Your task to perform on an android device: choose inbox layout in the gmail app Image 0: 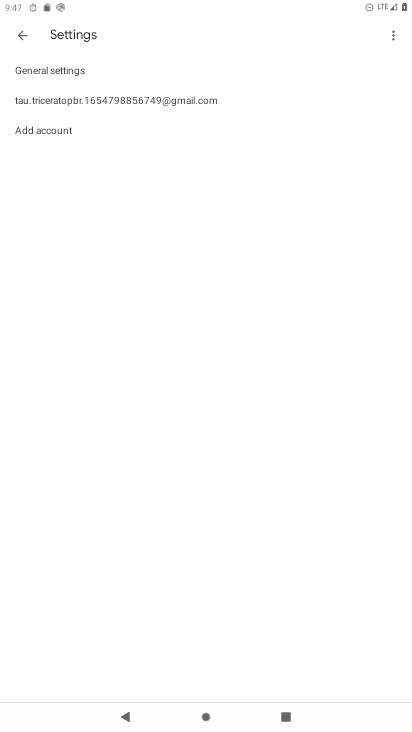
Step 0: press home button
Your task to perform on an android device: choose inbox layout in the gmail app Image 1: 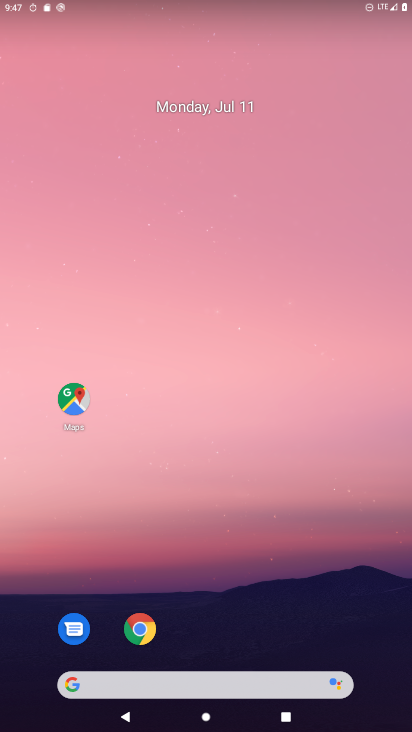
Step 1: drag from (206, 626) to (206, 83)
Your task to perform on an android device: choose inbox layout in the gmail app Image 2: 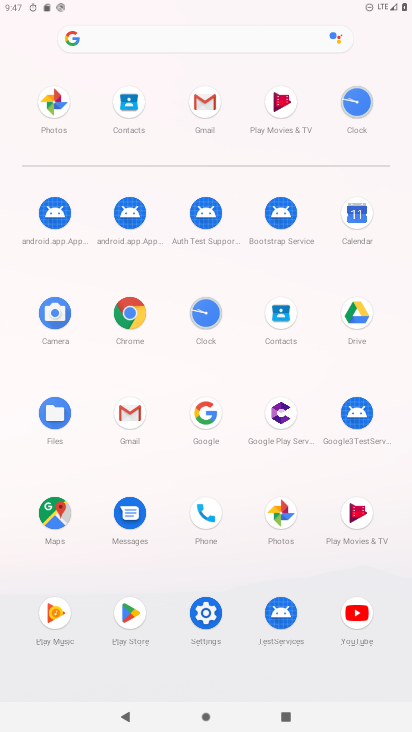
Step 2: click (205, 101)
Your task to perform on an android device: choose inbox layout in the gmail app Image 3: 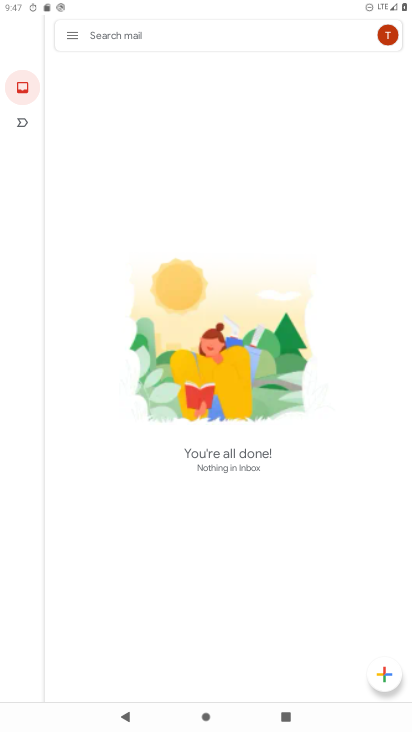
Step 3: click (80, 35)
Your task to perform on an android device: choose inbox layout in the gmail app Image 4: 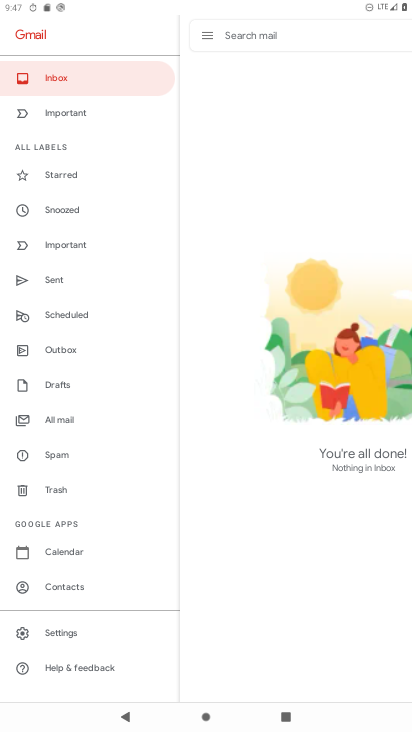
Step 4: click (40, 632)
Your task to perform on an android device: choose inbox layout in the gmail app Image 5: 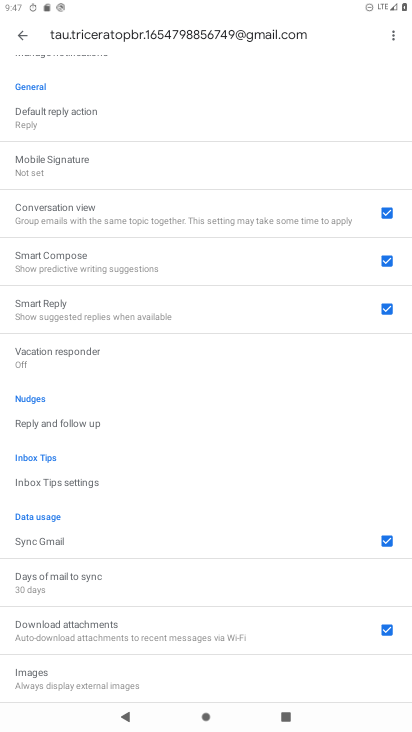
Step 5: drag from (130, 127) to (121, 631)
Your task to perform on an android device: choose inbox layout in the gmail app Image 6: 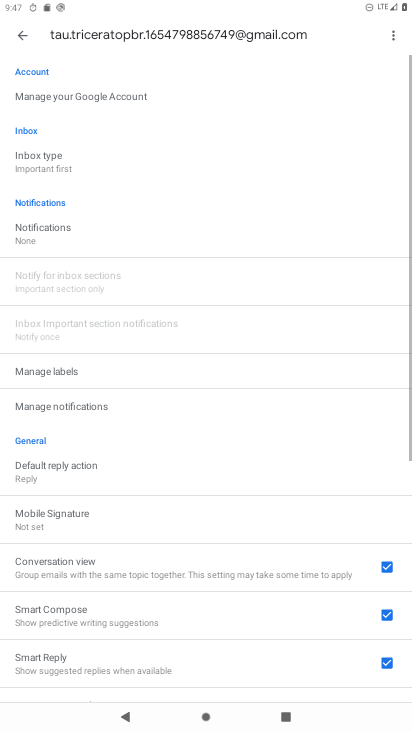
Step 6: drag from (191, 157) to (213, 587)
Your task to perform on an android device: choose inbox layout in the gmail app Image 7: 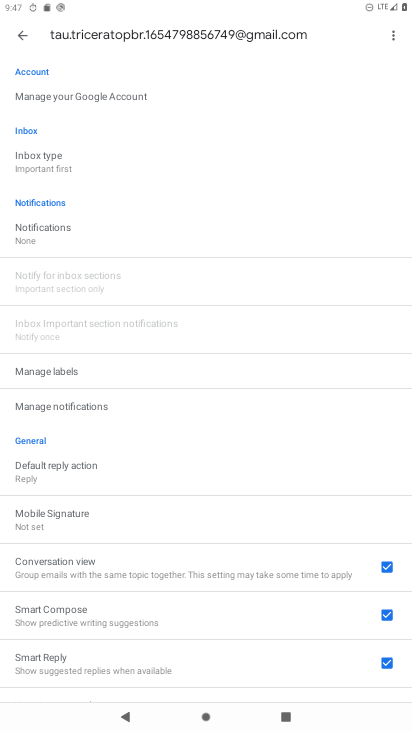
Step 7: click (88, 154)
Your task to perform on an android device: choose inbox layout in the gmail app Image 8: 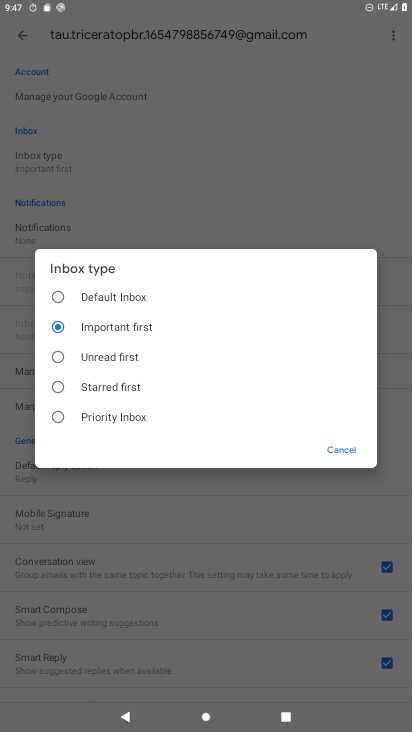
Step 8: click (175, 379)
Your task to perform on an android device: choose inbox layout in the gmail app Image 9: 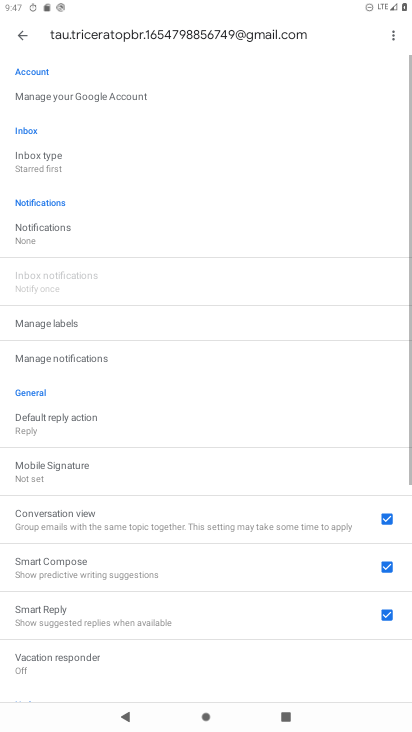
Step 9: task complete